Your task to perform on an android device: turn on priority inbox in the gmail app Image 0: 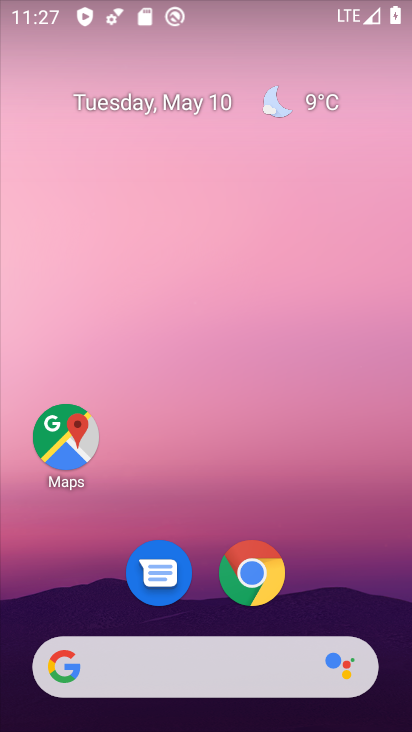
Step 0: drag from (121, 671) to (260, 232)
Your task to perform on an android device: turn on priority inbox in the gmail app Image 1: 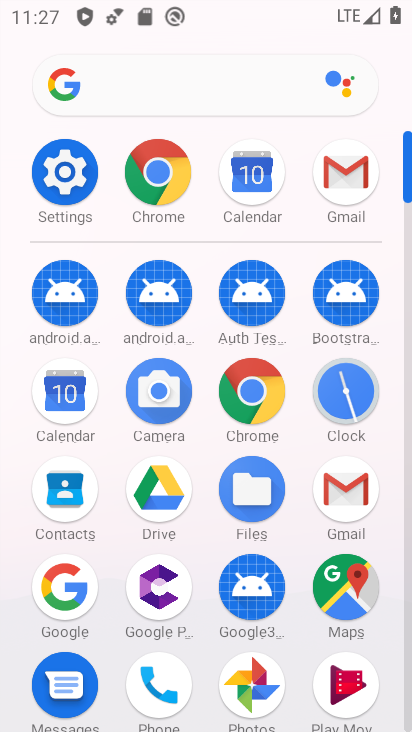
Step 1: click (335, 187)
Your task to perform on an android device: turn on priority inbox in the gmail app Image 2: 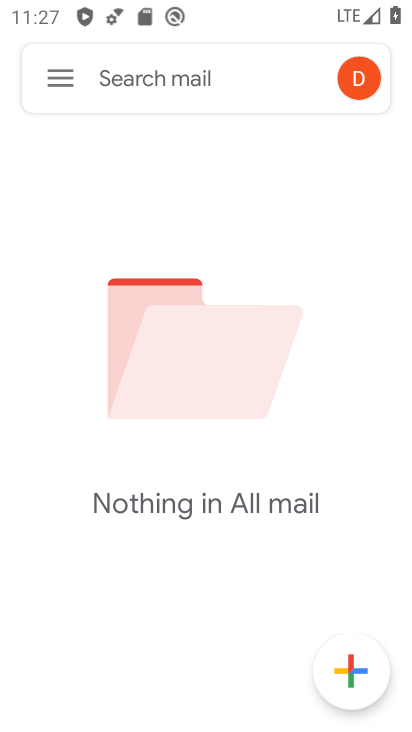
Step 2: click (58, 84)
Your task to perform on an android device: turn on priority inbox in the gmail app Image 3: 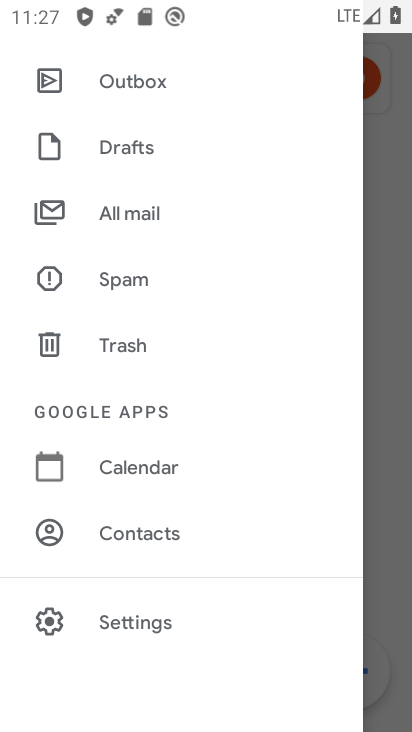
Step 3: click (136, 616)
Your task to perform on an android device: turn on priority inbox in the gmail app Image 4: 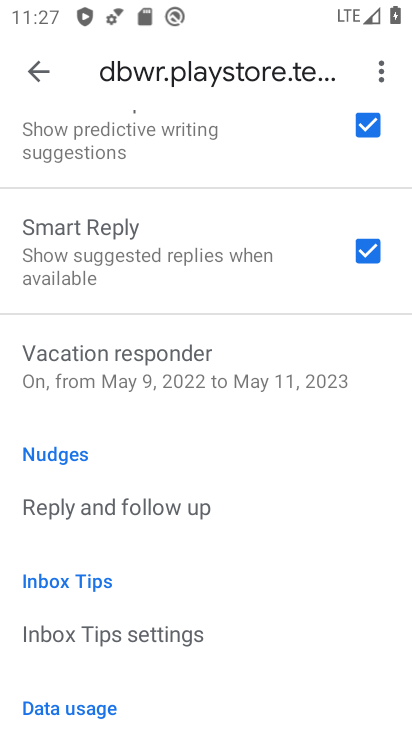
Step 4: drag from (264, 153) to (151, 666)
Your task to perform on an android device: turn on priority inbox in the gmail app Image 5: 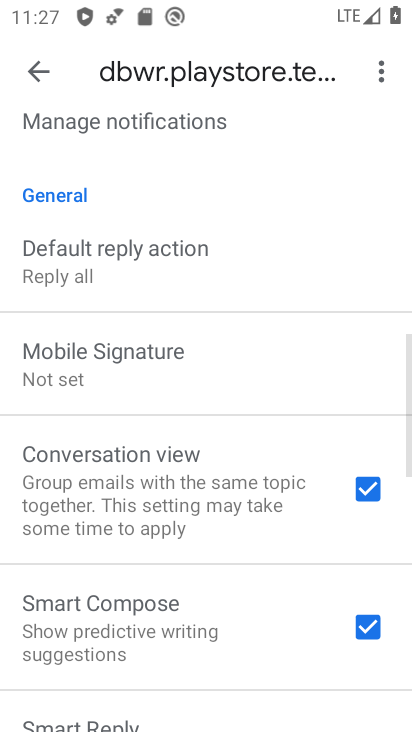
Step 5: drag from (206, 250) to (156, 629)
Your task to perform on an android device: turn on priority inbox in the gmail app Image 6: 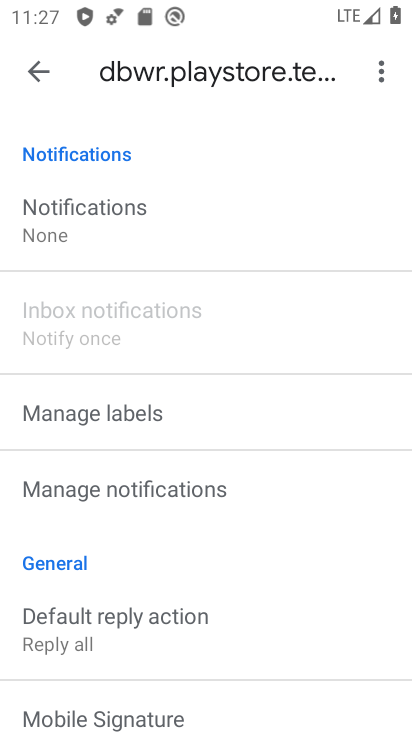
Step 6: drag from (215, 242) to (197, 487)
Your task to perform on an android device: turn on priority inbox in the gmail app Image 7: 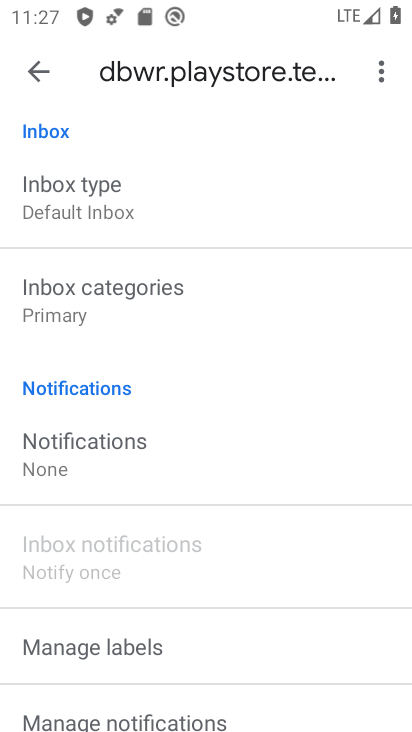
Step 7: drag from (262, 220) to (224, 433)
Your task to perform on an android device: turn on priority inbox in the gmail app Image 8: 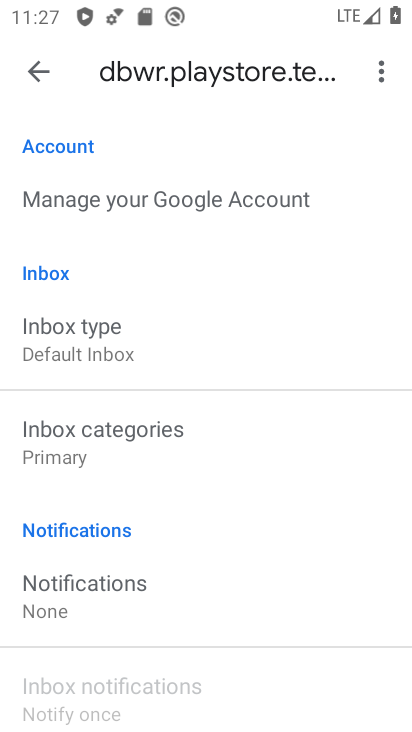
Step 8: click (109, 347)
Your task to perform on an android device: turn on priority inbox in the gmail app Image 9: 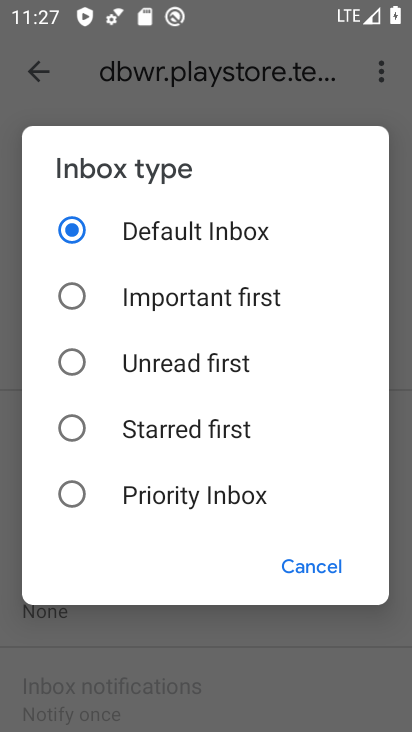
Step 9: click (70, 494)
Your task to perform on an android device: turn on priority inbox in the gmail app Image 10: 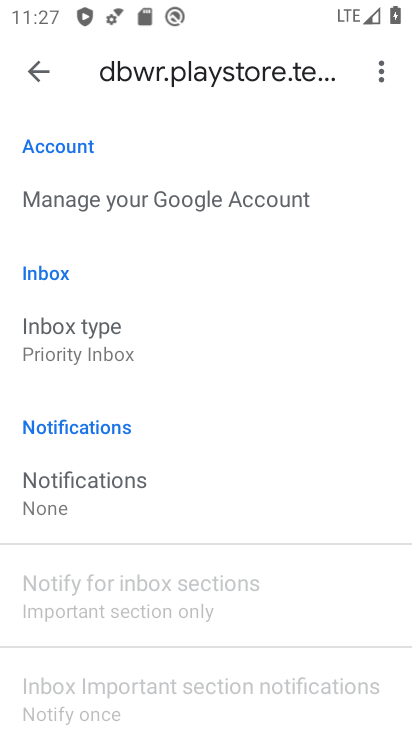
Step 10: task complete